Your task to perform on an android device: turn off airplane mode Image 0: 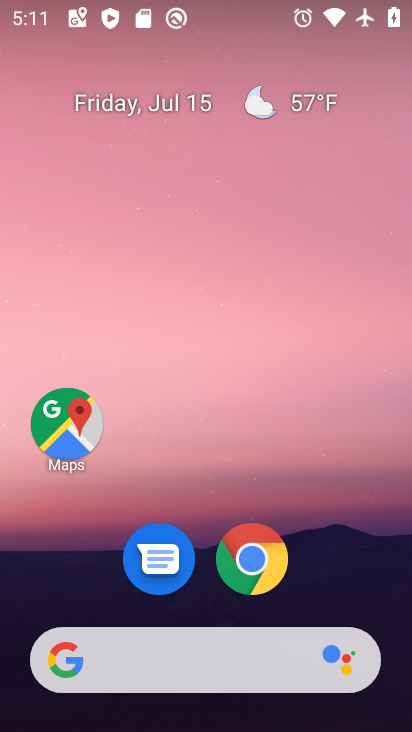
Step 0: drag from (340, 92) to (282, 664)
Your task to perform on an android device: turn off airplane mode Image 1: 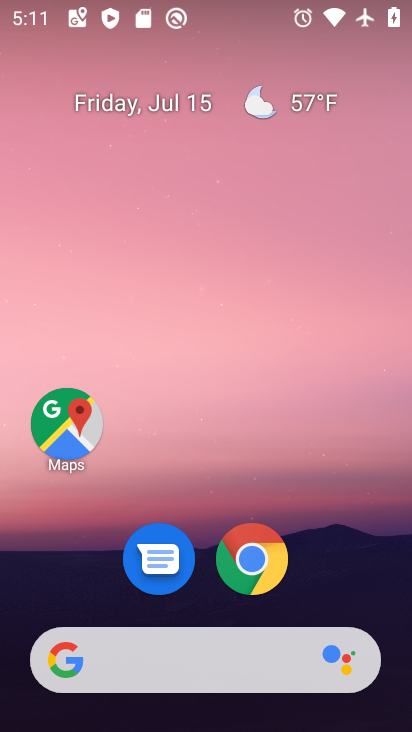
Step 1: drag from (314, 8) to (263, 579)
Your task to perform on an android device: turn off airplane mode Image 2: 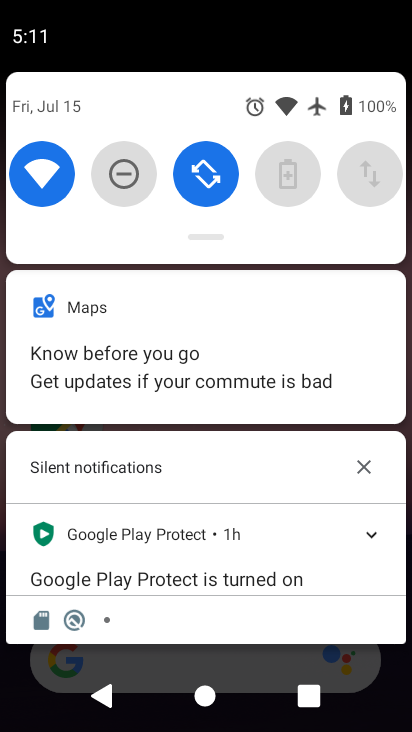
Step 2: drag from (196, 235) to (186, 613)
Your task to perform on an android device: turn off airplane mode Image 3: 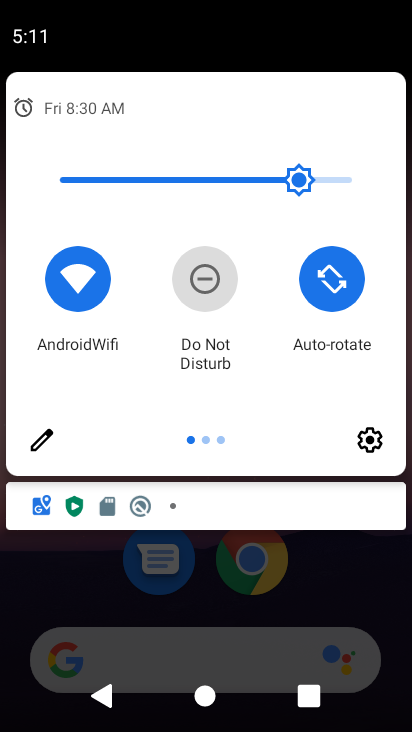
Step 3: drag from (359, 282) to (0, 295)
Your task to perform on an android device: turn off airplane mode Image 4: 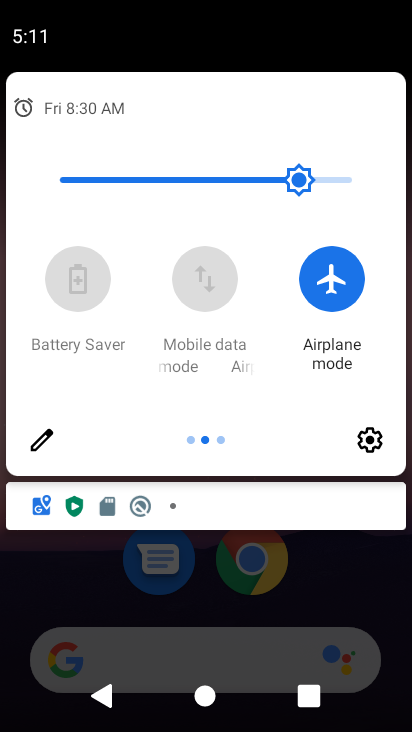
Step 4: click (334, 275)
Your task to perform on an android device: turn off airplane mode Image 5: 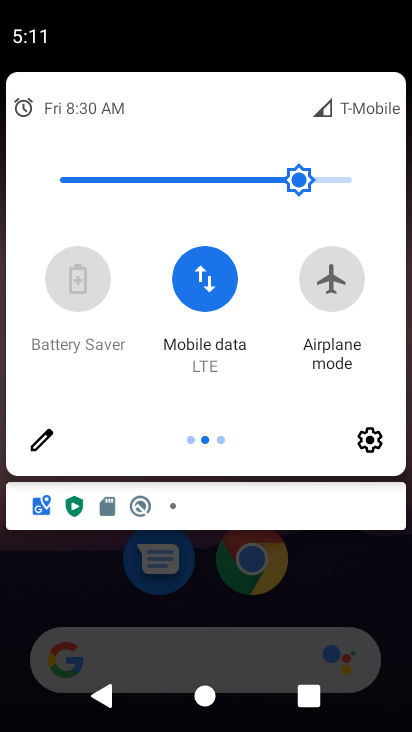
Step 5: task complete